Your task to perform on an android device: Open calendar and show me the first week of next month Image 0: 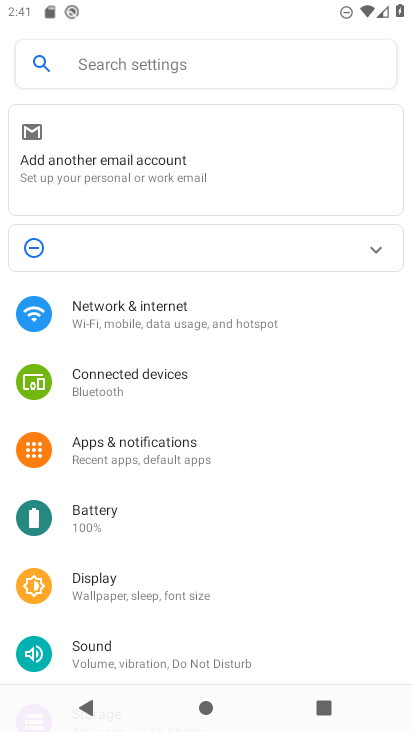
Step 0: press home button
Your task to perform on an android device: Open calendar and show me the first week of next month Image 1: 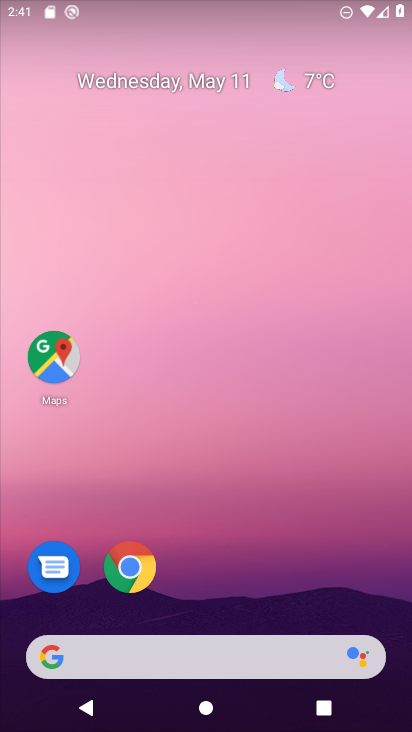
Step 1: drag from (255, 571) to (217, 231)
Your task to perform on an android device: Open calendar and show me the first week of next month Image 2: 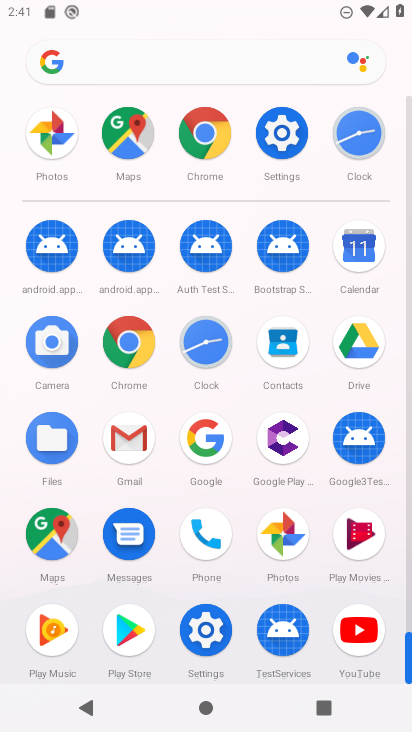
Step 2: click (359, 246)
Your task to perform on an android device: Open calendar and show me the first week of next month Image 3: 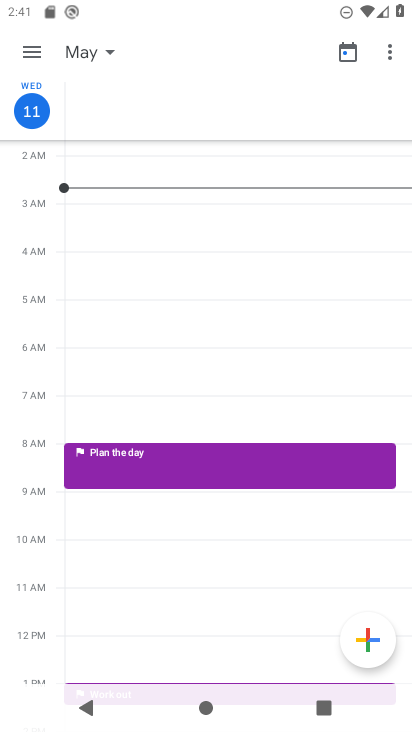
Step 3: click (94, 45)
Your task to perform on an android device: Open calendar and show me the first week of next month Image 4: 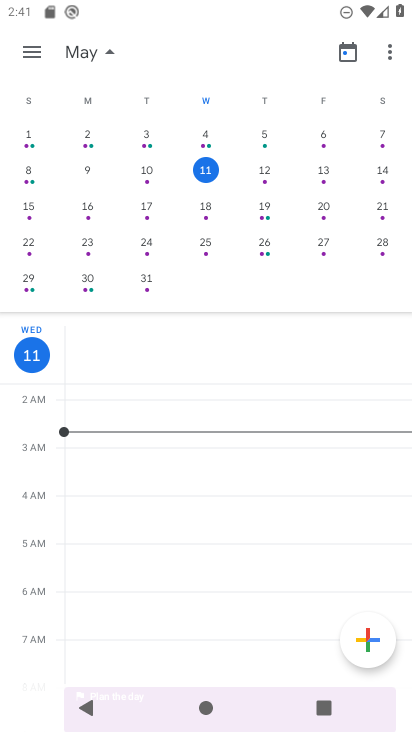
Step 4: drag from (365, 251) to (88, 190)
Your task to perform on an android device: Open calendar and show me the first week of next month Image 5: 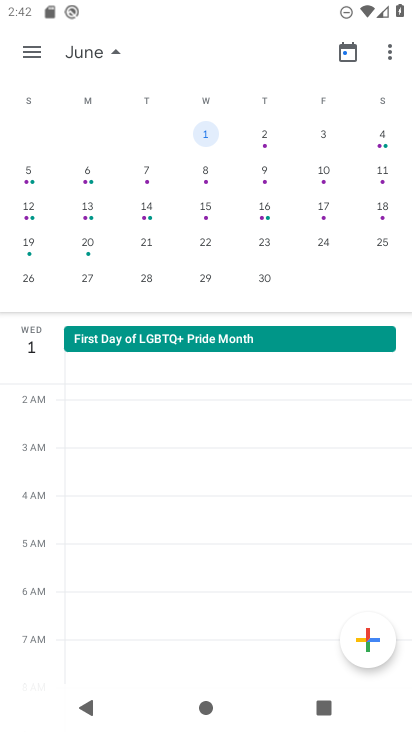
Step 5: click (25, 171)
Your task to perform on an android device: Open calendar and show me the first week of next month Image 6: 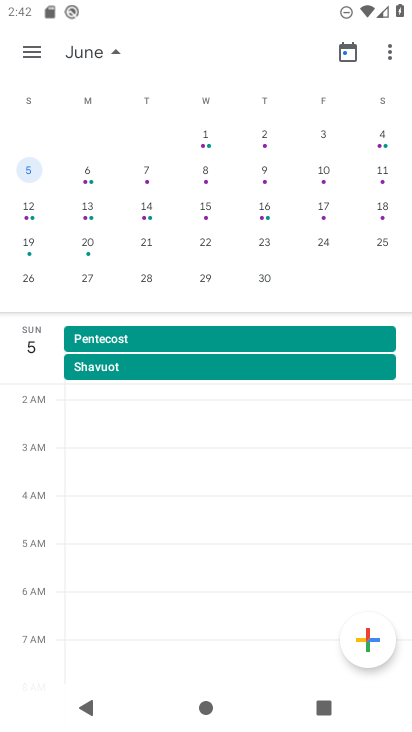
Step 6: click (37, 57)
Your task to perform on an android device: Open calendar and show me the first week of next month Image 7: 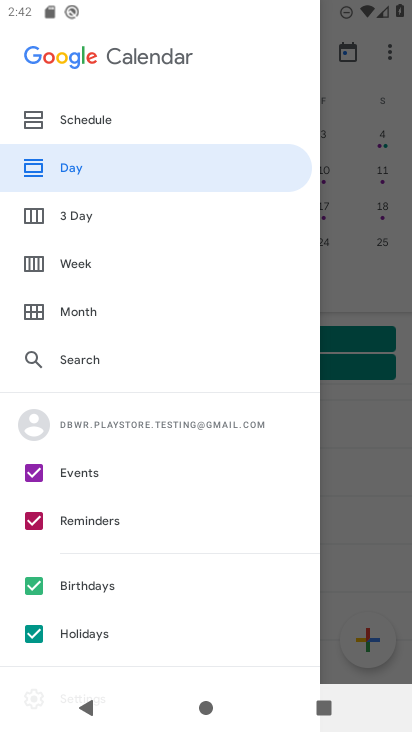
Step 7: click (124, 260)
Your task to perform on an android device: Open calendar and show me the first week of next month Image 8: 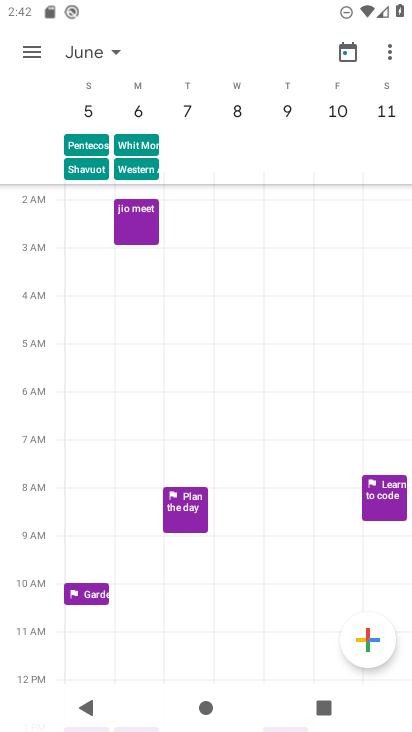
Step 8: task complete